Your task to perform on an android device: stop showing notifications on the lock screen Image 0: 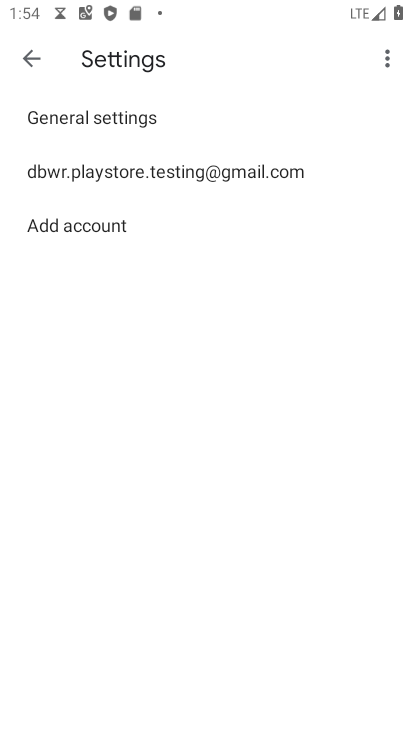
Step 0: press home button
Your task to perform on an android device: stop showing notifications on the lock screen Image 1: 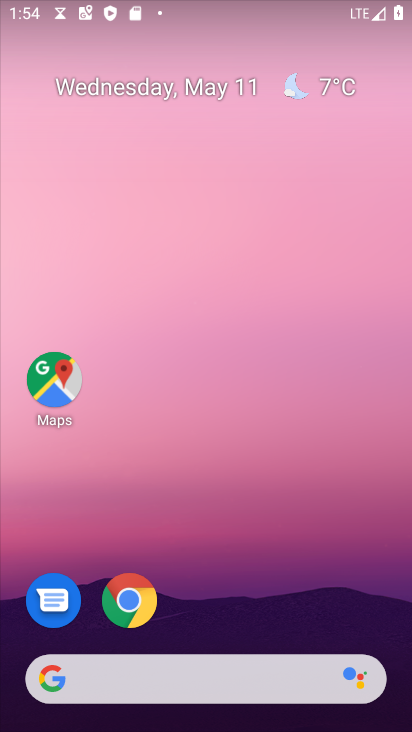
Step 1: drag from (277, 529) to (217, 62)
Your task to perform on an android device: stop showing notifications on the lock screen Image 2: 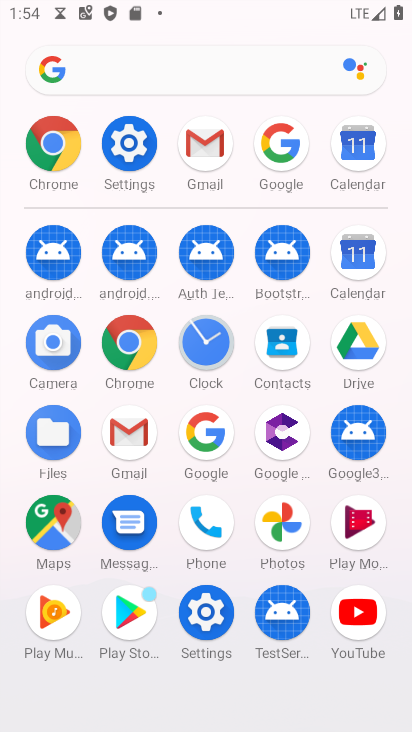
Step 2: click (119, 146)
Your task to perform on an android device: stop showing notifications on the lock screen Image 3: 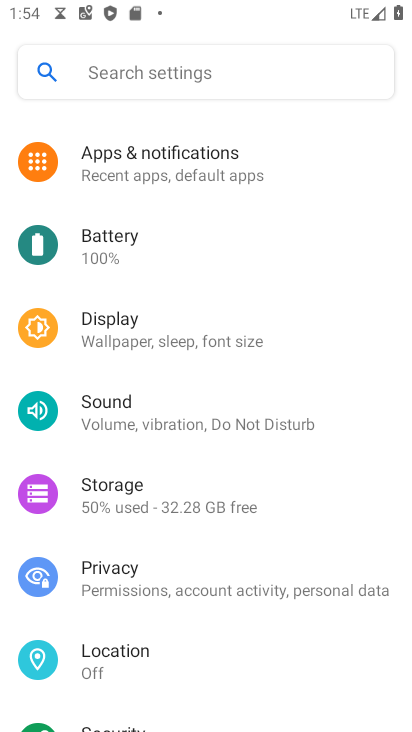
Step 3: click (193, 163)
Your task to perform on an android device: stop showing notifications on the lock screen Image 4: 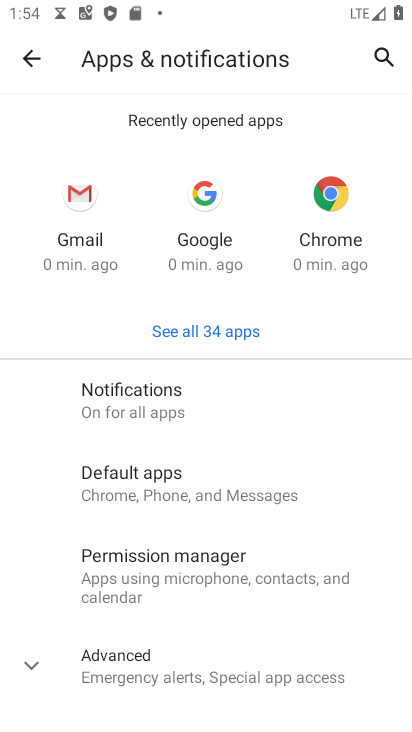
Step 4: click (202, 404)
Your task to perform on an android device: stop showing notifications on the lock screen Image 5: 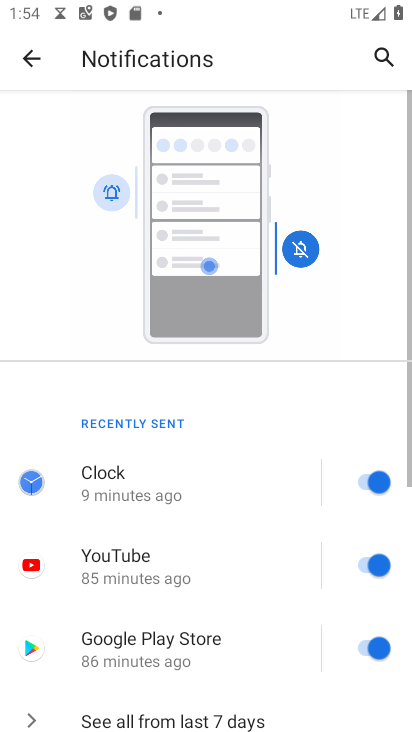
Step 5: drag from (223, 573) to (212, 114)
Your task to perform on an android device: stop showing notifications on the lock screen Image 6: 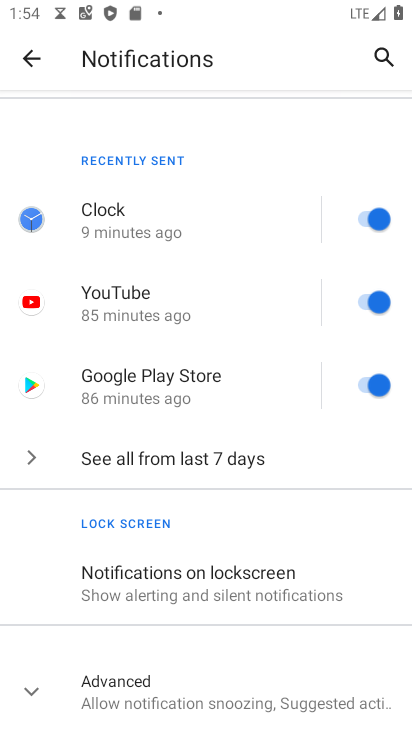
Step 6: click (170, 587)
Your task to perform on an android device: stop showing notifications on the lock screen Image 7: 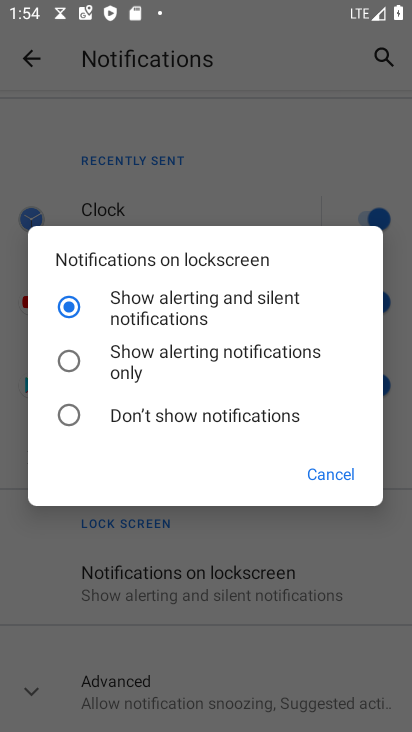
Step 7: click (156, 417)
Your task to perform on an android device: stop showing notifications on the lock screen Image 8: 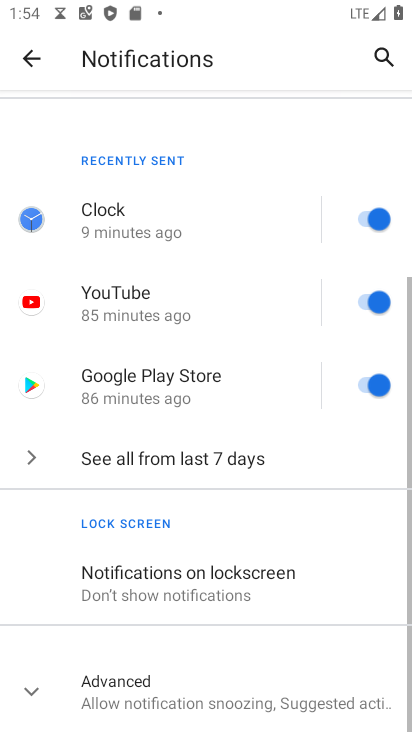
Step 8: task complete